Your task to perform on an android device: Open Youtube and go to "Your channel" Image 0: 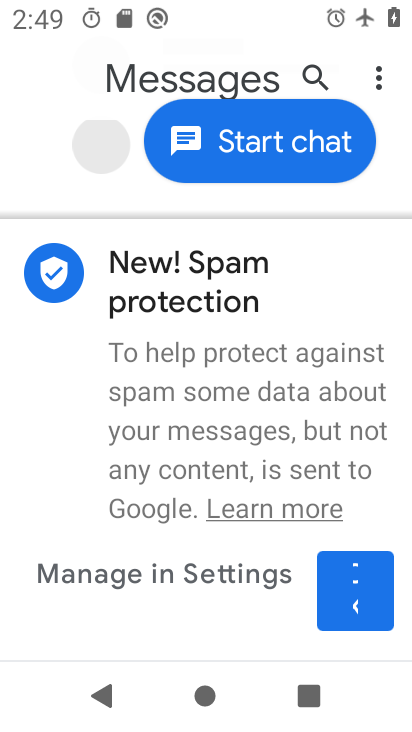
Step 0: press home button
Your task to perform on an android device: Open Youtube and go to "Your channel" Image 1: 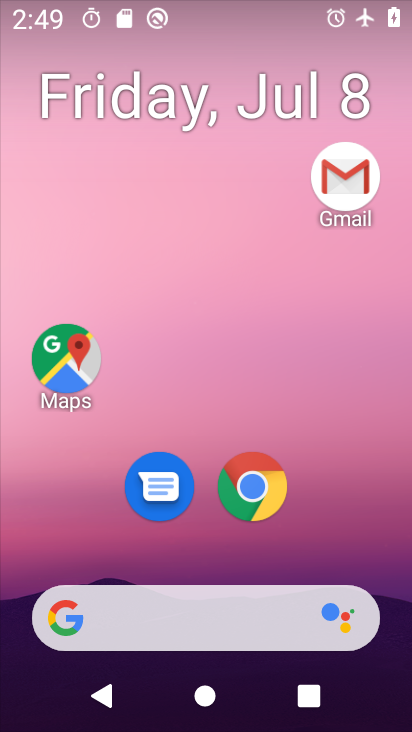
Step 1: drag from (363, 535) to (320, 115)
Your task to perform on an android device: Open Youtube and go to "Your channel" Image 2: 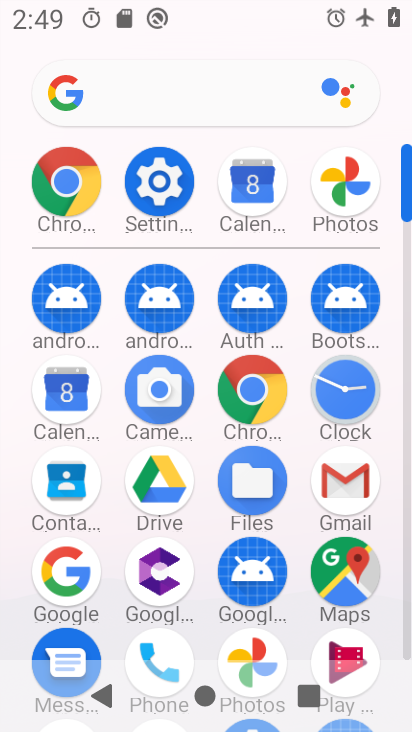
Step 2: drag from (387, 574) to (393, 358)
Your task to perform on an android device: Open Youtube and go to "Your channel" Image 3: 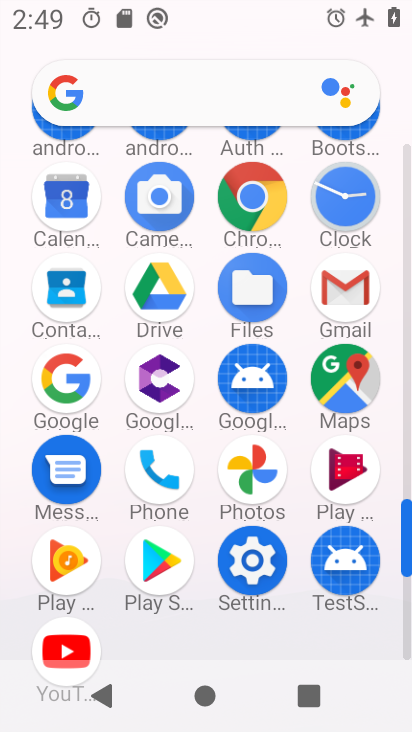
Step 3: drag from (292, 616) to (297, 424)
Your task to perform on an android device: Open Youtube and go to "Your channel" Image 4: 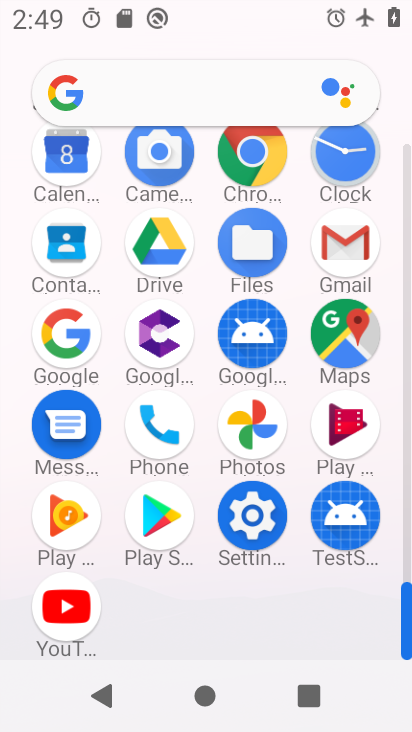
Step 4: click (69, 609)
Your task to perform on an android device: Open Youtube and go to "Your channel" Image 5: 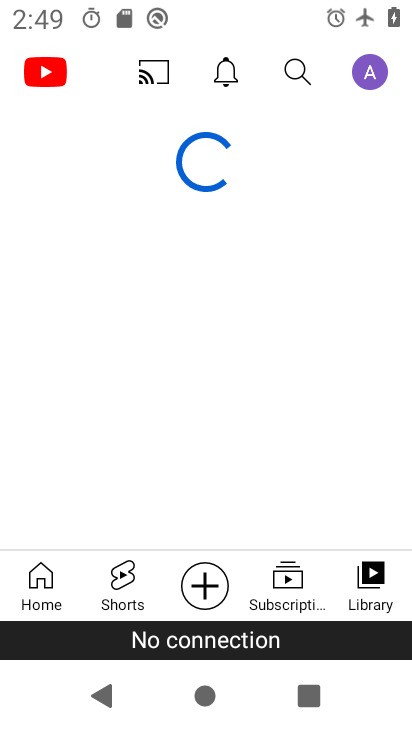
Step 5: click (363, 75)
Your task to perform on an android device: Open Youtube and go to "Your channel" Image 6: 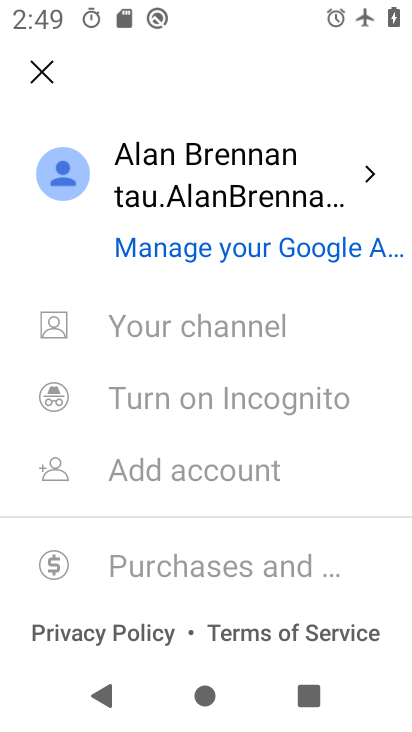
Step 6: task complete